Your task to perform on an android device: Open calendar and show me the fourth week of next month Image 0: 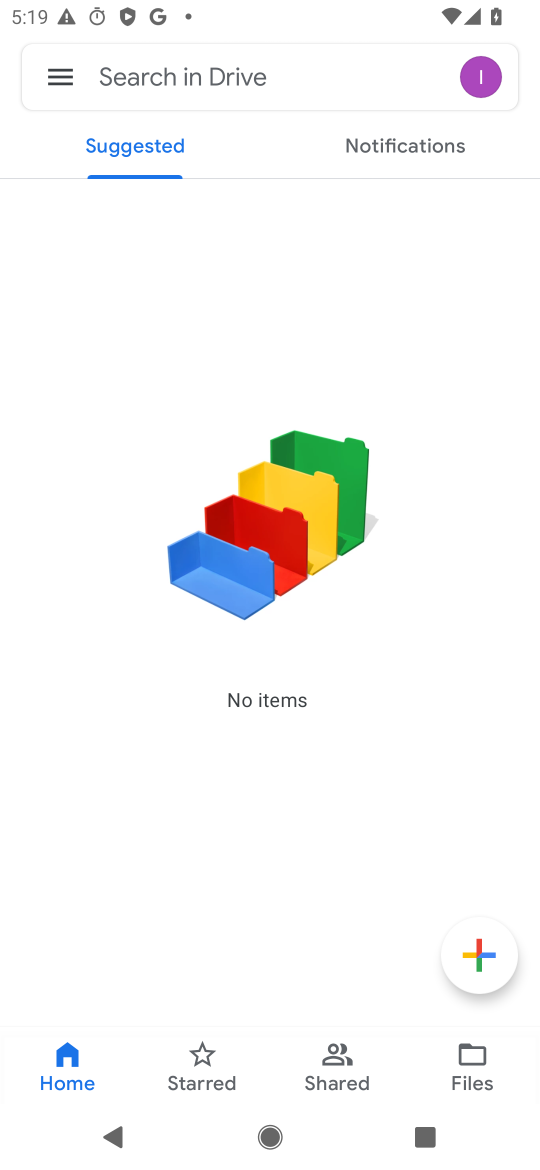
Step 0: press home button
Your task to perform on an android device: Open calendar and show me the fourth week of next month Image 1: 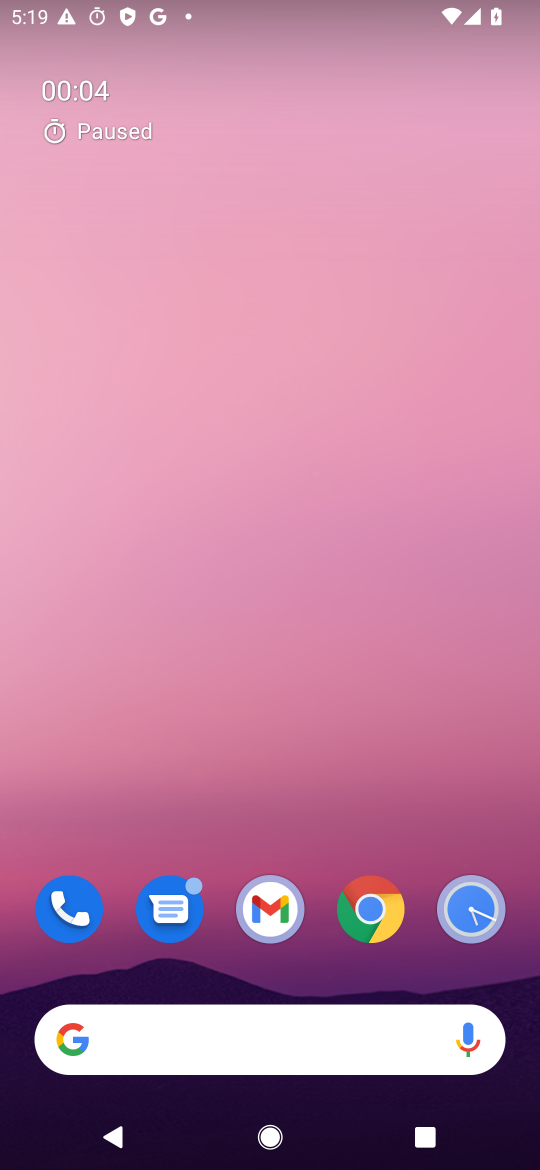
Step 1: drag from (232, 1045) to (363, 229)
Your task to perform on an android device: Open calendar and show me the fourth week of next month Image 2: 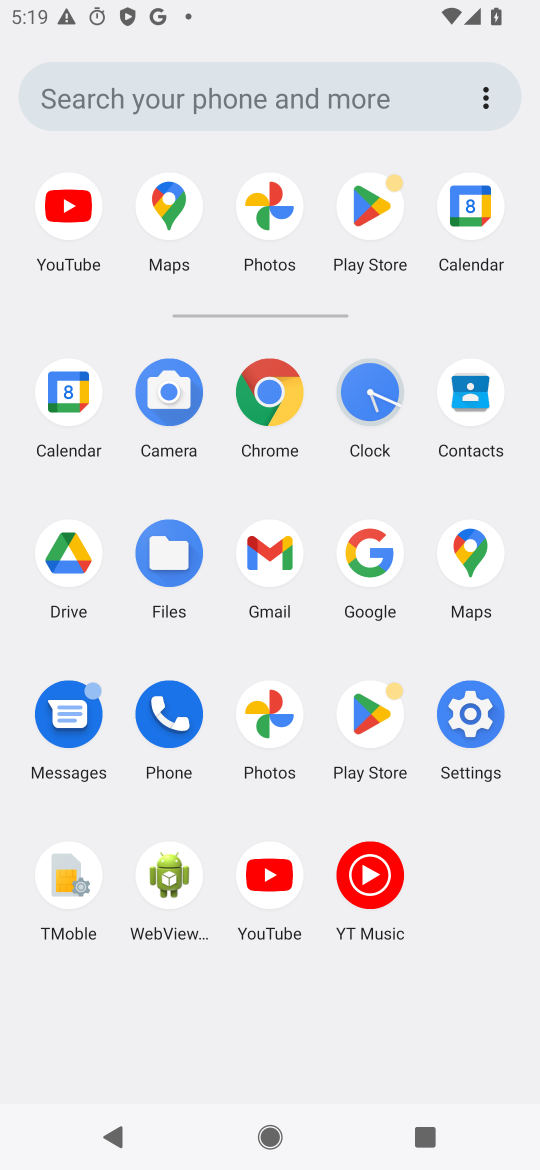
Step 2: click (62, 391)
Your task to perform on an android device: Open calendar and show me the fourth week of next month Image 3: 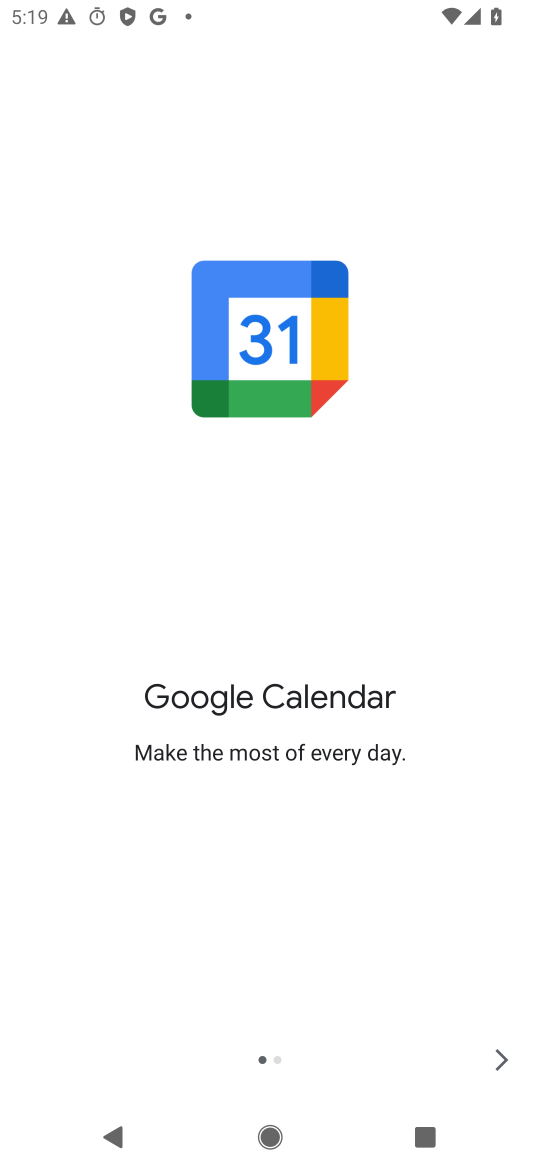
Step 3: click (509, 1059)
Your task to perform on an android device: Open calendar and show me the fourth week of next month Image 4: 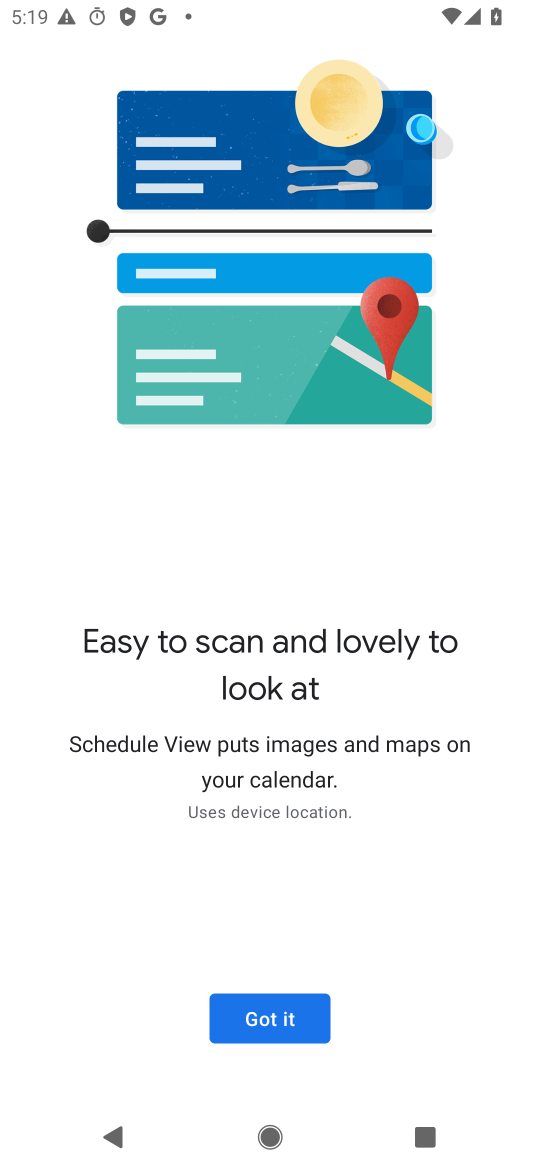
Step 4: click (277, 1013)
Your task to perform on an android device: Open calendar and show me the fourth week of next month Image 5: 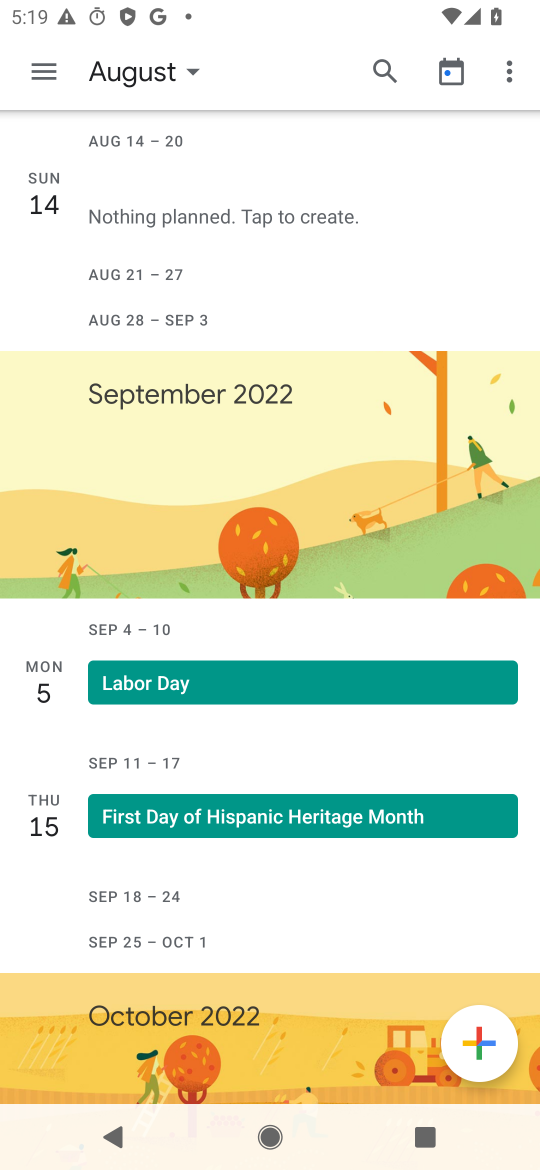
Step 5: click (142, 73)
Your task to perform on an android device: Open calendar and show me the fourth week of next month Image 6: 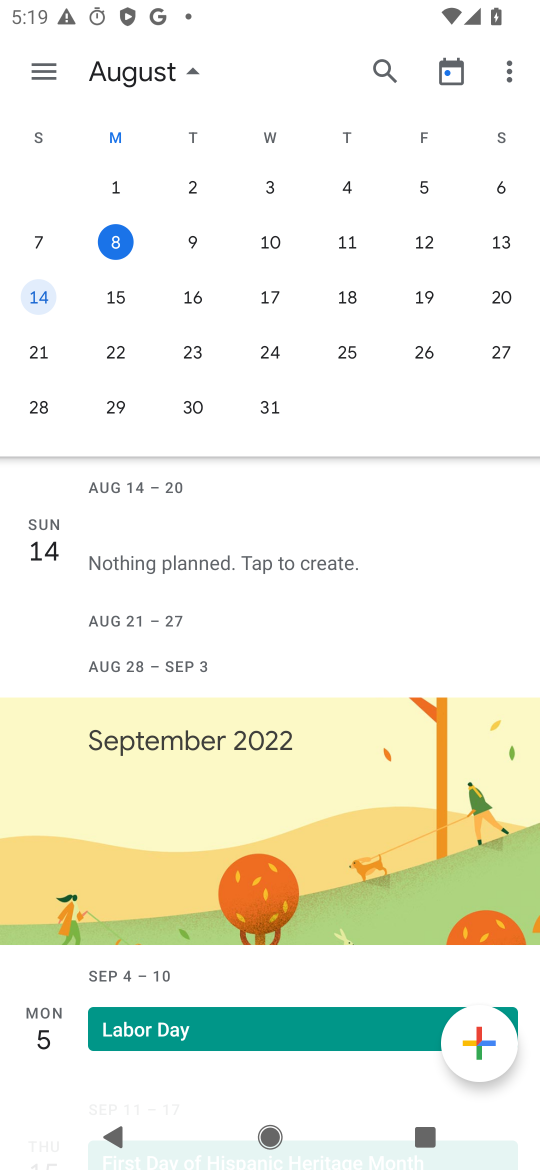
Step 6: drag from (479, 265) to (5, 331)
Your task to perform on an android device: Open calendar and show me the fourth week of next month Image 7: 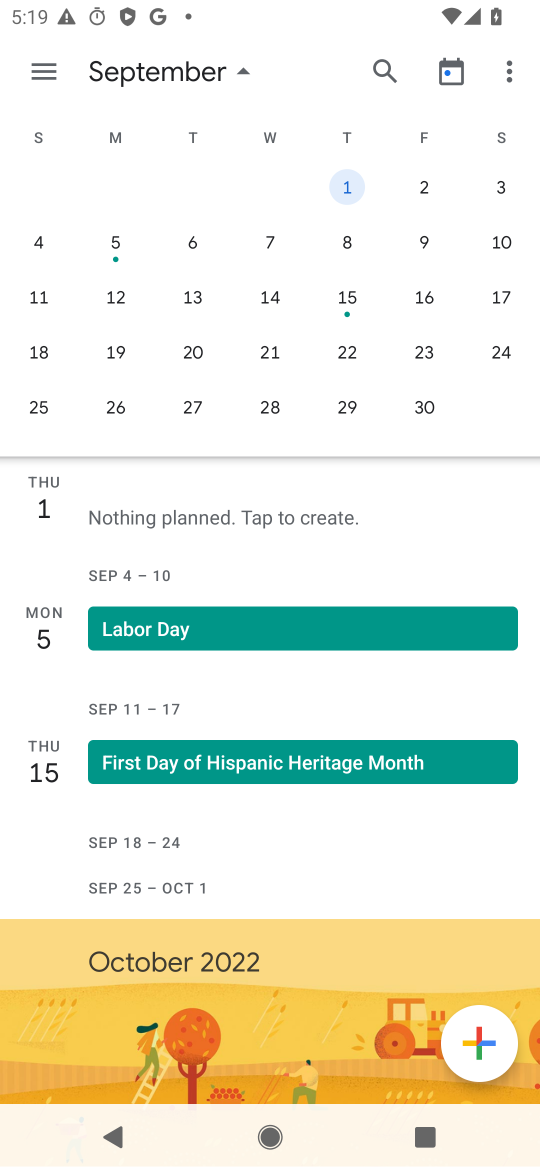
Step 7: click (40, 349)
Your task to perform on an android device: Open calendar and show me the fourth week of next month Image 8: 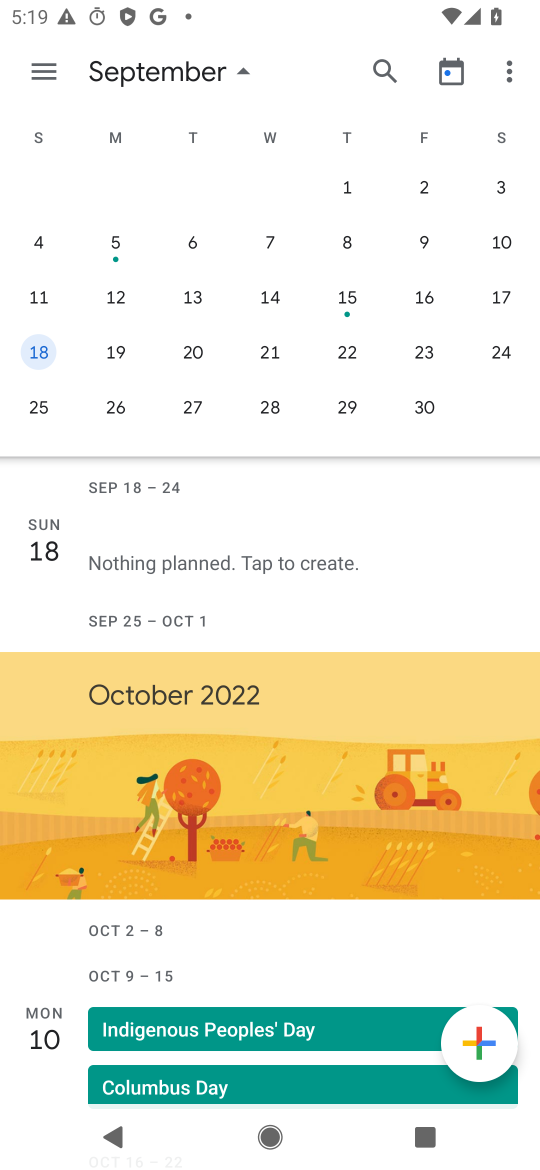
Step 8: click (36, 69)
Your task to perform on an android device: Open calendar and show me the fourth week of next month Image 9: 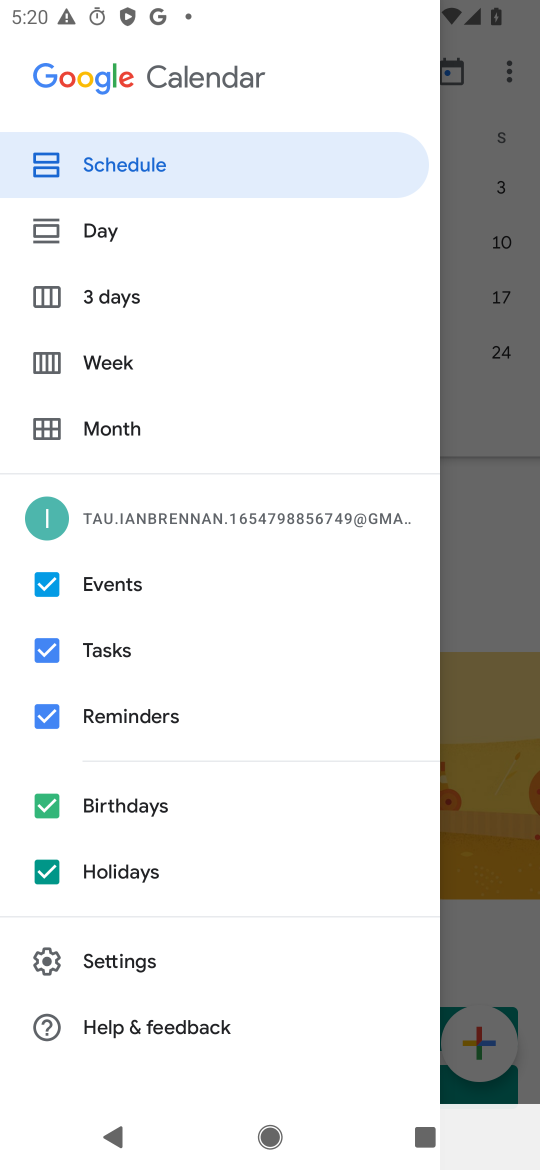
Step 9: click (125, 363)
Your task to perform on an android device: Open calendar and show me the fourth week of next month Image 10: 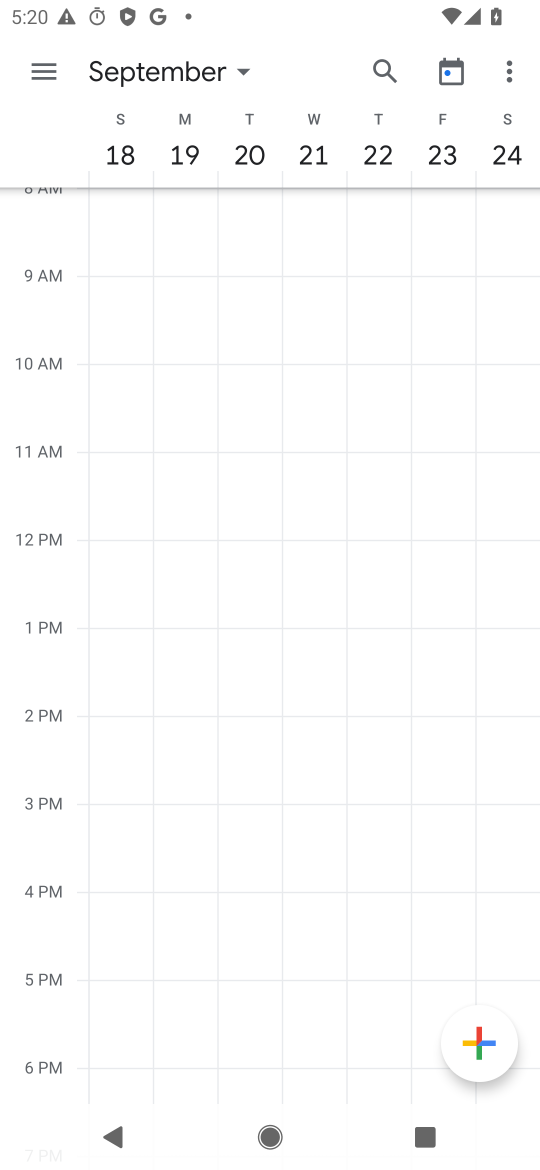
Step 10: task complete